Your task to perform on an android device: Open the map Image 0: 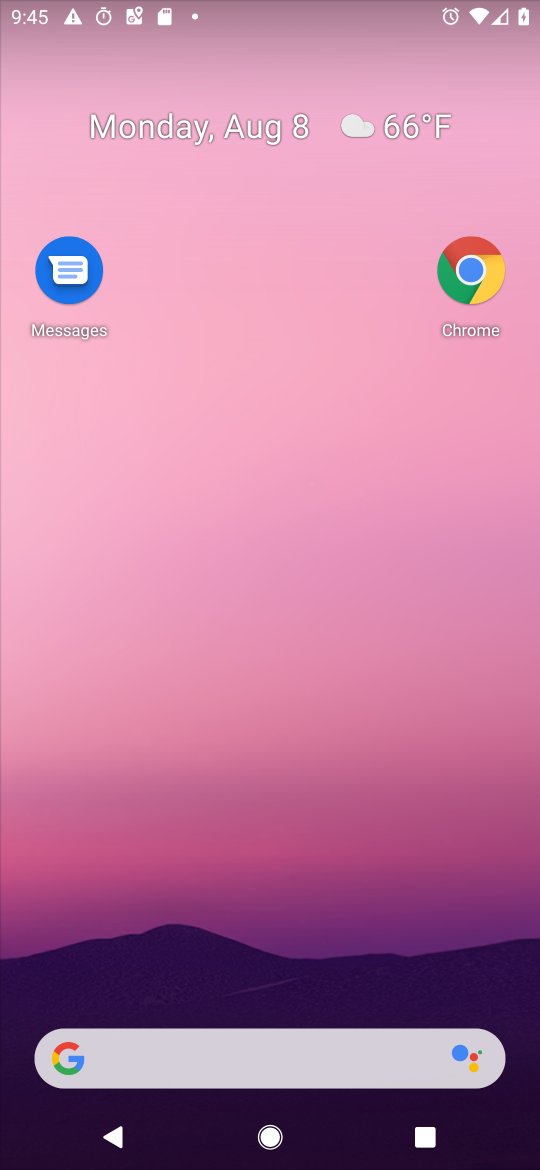
Step 0: drag from (265, 960) to (288, 14)
Your task to perform on an android device: Open the map Image 1: 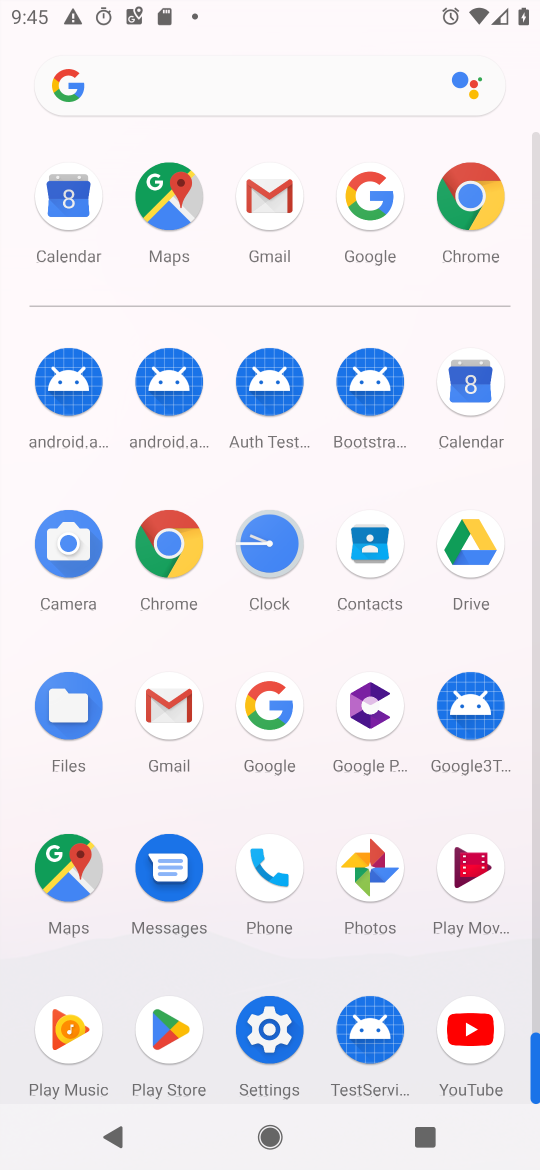
Step 1: click (60, 852)
Your task to perform on an android device: Open the map Image 2: 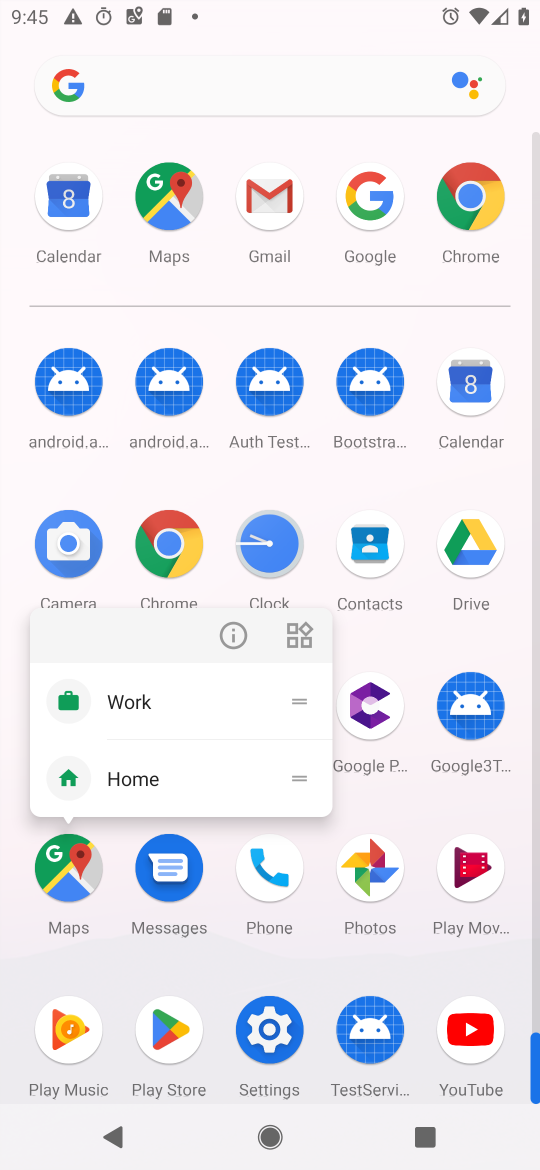
Step 2: click (232, 627)
Your task to perform on an android device: Open the map Image 3: 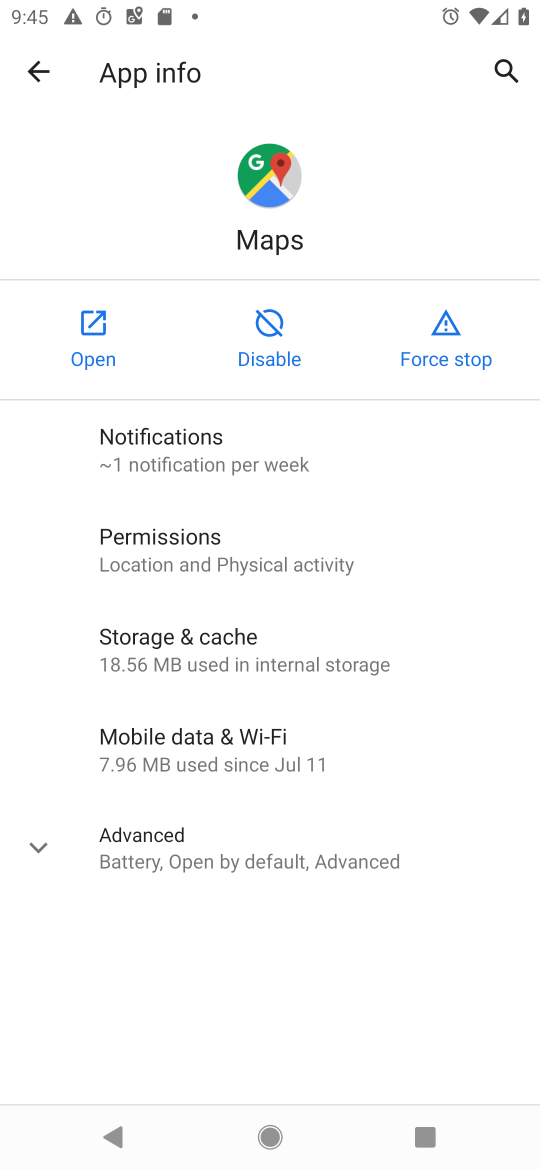
Step 3: click (99, 311)
Your task to perform on an android device: Open the map Image 4: 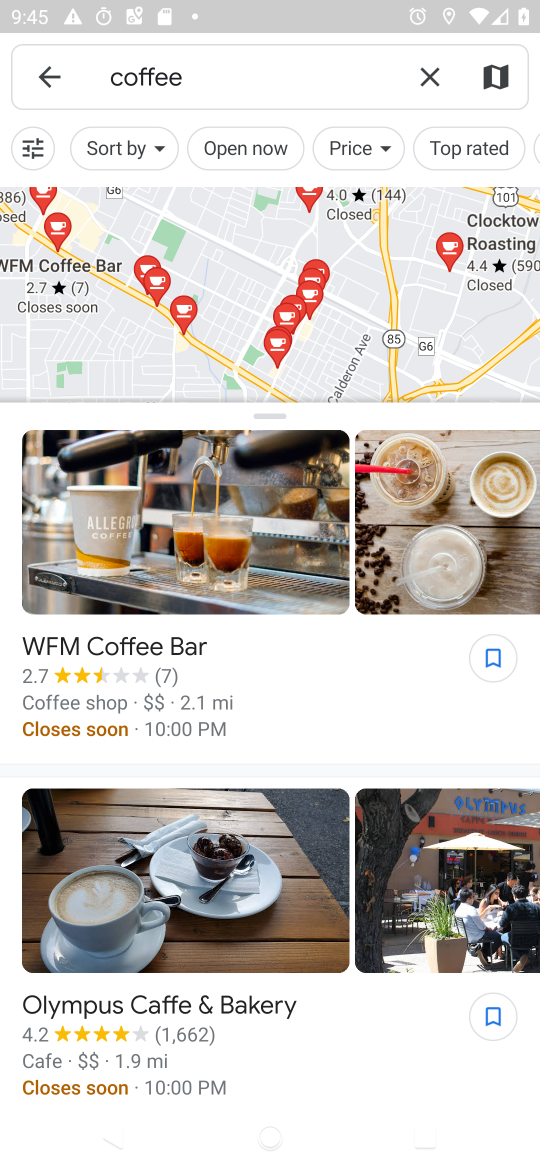
Step 4: click (435, 70)
Your task to perform on an android device: Open the map Image 5: 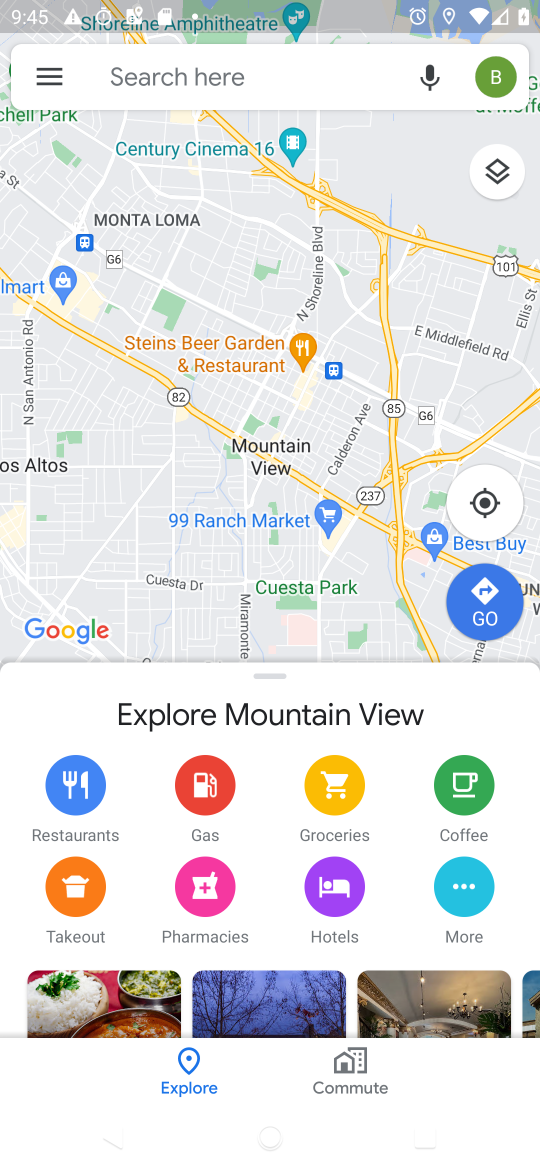
Step 5: click (222, 80)
Your task to perform on an android device: Open the map Image 6: 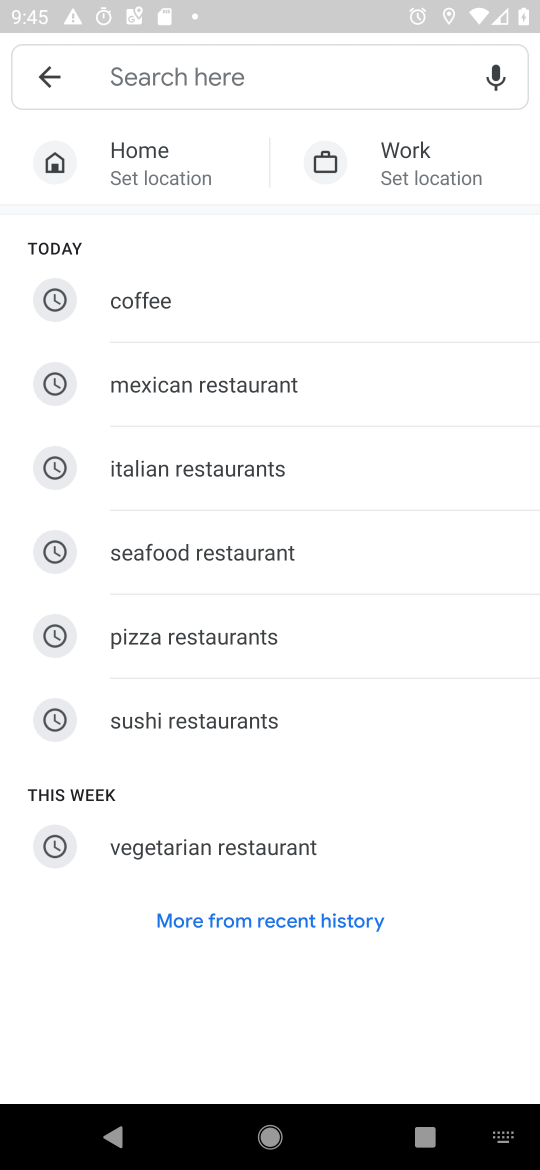
Step 6: click (33, 77)
Your task to perform on an android device: Open the map Image 7: 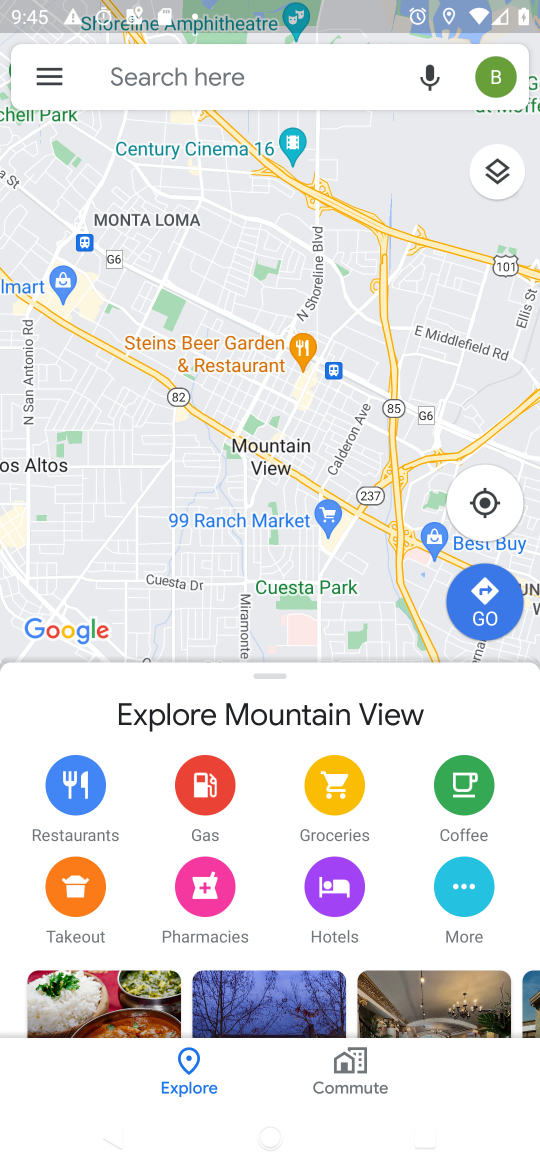
Step 7: task complete